Your task to perform on an android device: search for starred emails in the gmail app Image 0: 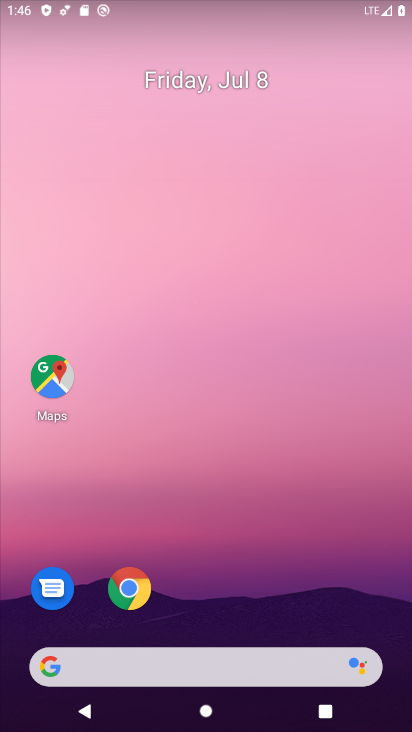
Step 0: press home button
Your task to perform on an android device: search for starred emails in the gmail app Image 1: 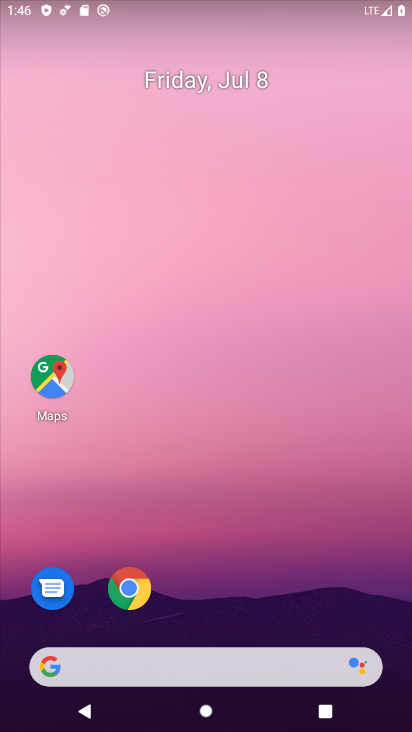
Step 1: drag from (217, 624) to (162, 63)
Your task to perform on an android device: search for starred emails in the gmail app Image 2: 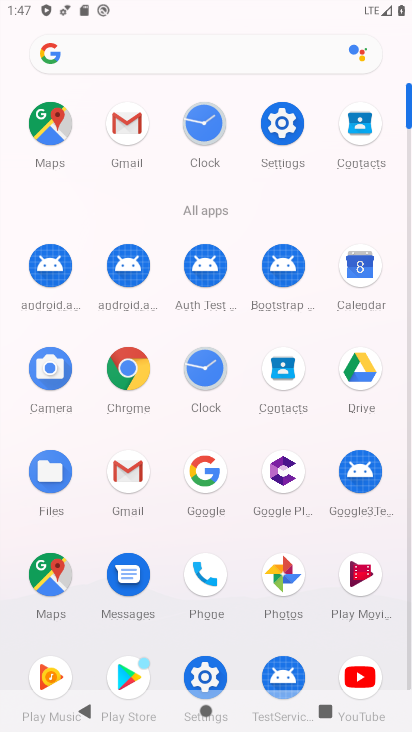
Step 2: click (115, 130)
Your task to perform on an android device: search for starred emails in the gmail app Image 3: 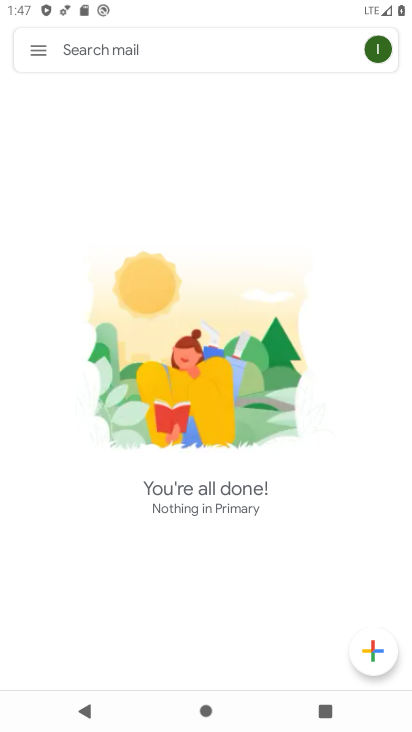
Step 3: click (32, 47)
Your task to perform on an android device: search for starred emails in the gmail app Image 4: 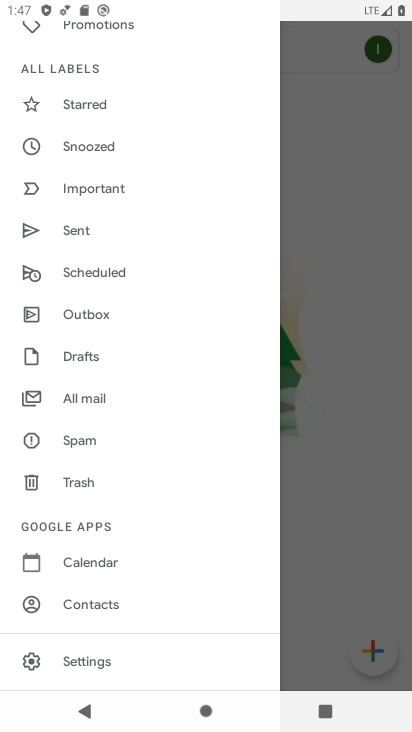
Step 4: click (77, 101)
Your task to perform on an android device: search for starred emails in the gmail app Image 5: 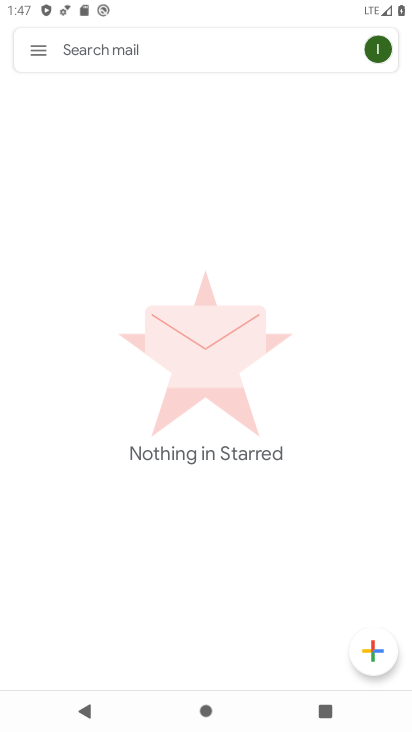
Step 5: task complete